Your task to perform on an android device: visit the assistant section in the google photos Image 0: 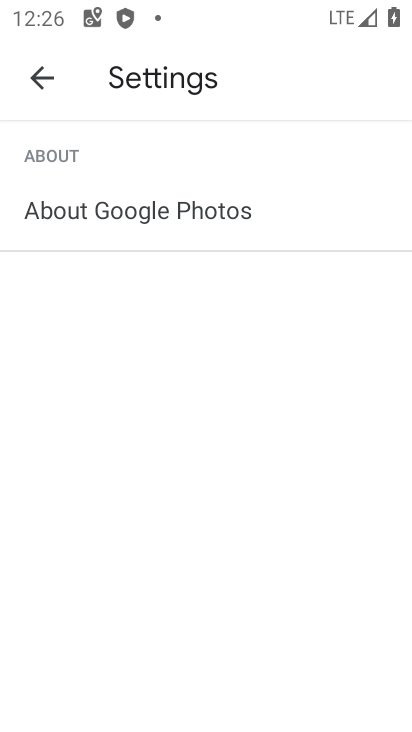
Step 0: press home button
Your task to perform on an android device: visit the assistant section in the google photos Image 1: 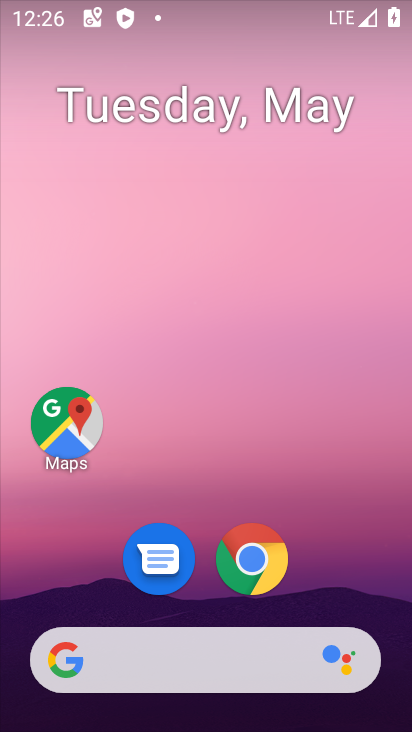
Step 1: drag from (357, 590) to (358, 1)
Your task to perform on an android device: visit the assistant section in the google photos Image 2: 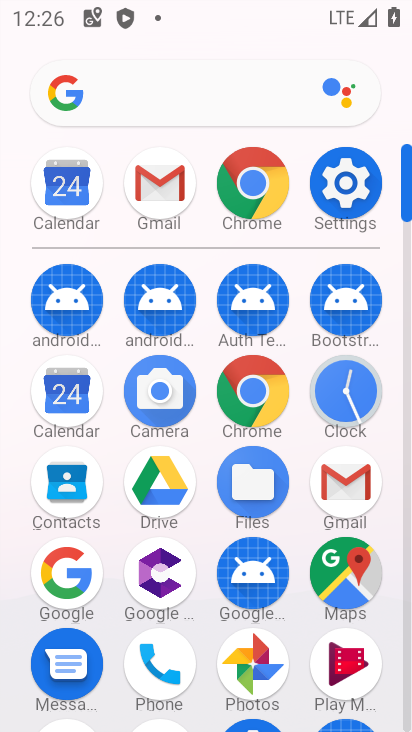
Step 2: click (258, 667)
Your task to perform on an android device: visit the assistant section in the google photos Image 3: 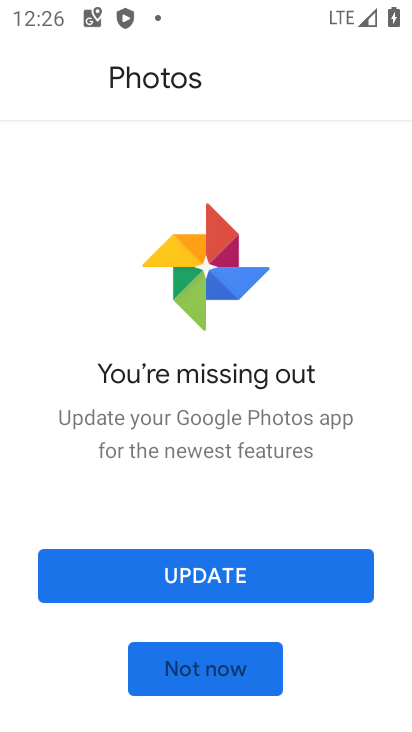
Step 3: click (208, 674)
Your task to perform on an android device: visit the assistant section in the google photos Image 4: 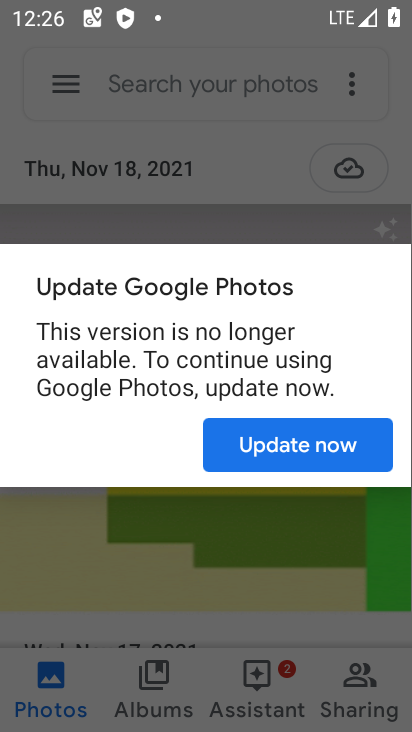
Step 4: click (300, 459)
Your task to perform on an android device: visit the assistant section in the google photos Image 5: 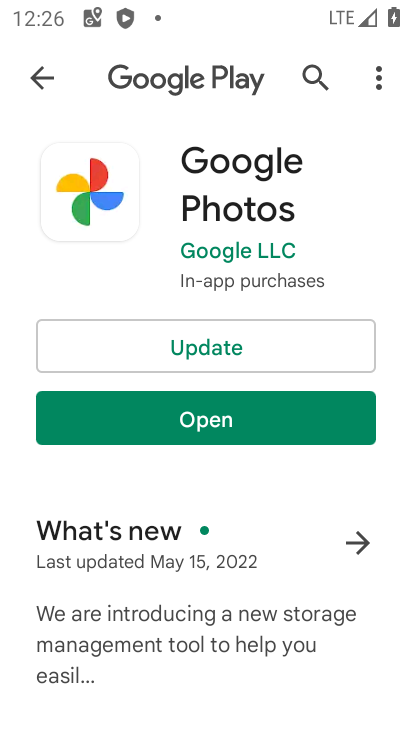
Step 5: click (243, 334)
Your task to perform on an android device: visit the assistant section in the google photos Image 6: 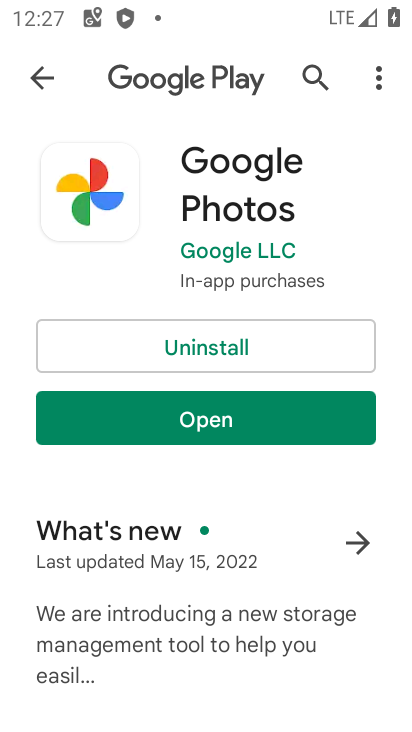
Step 6: click (164, 420)
Your task to perform on an android device: visit the assistant section in the google photos Image 7: 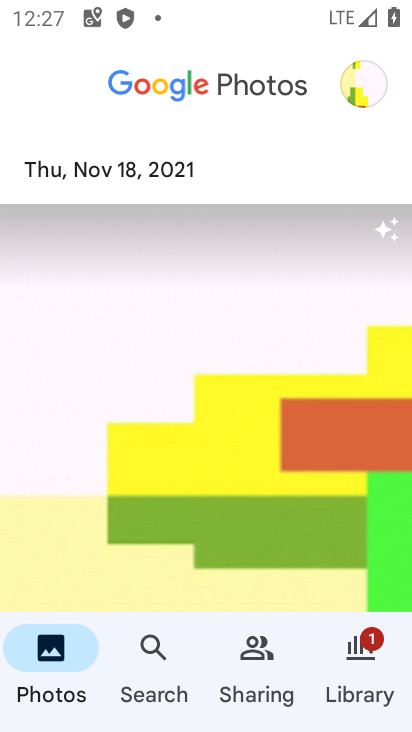
Step 7: click (371, 696)
Your task to perform on an android device: visit the assistant section in the google photos Image 8: 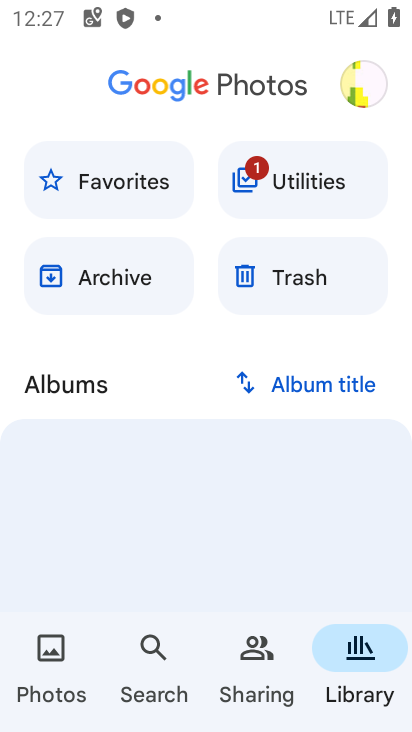
Step 8: click (307, 183)
Your task to perform on an android device: visit the assistant section in the google photos Image 9: 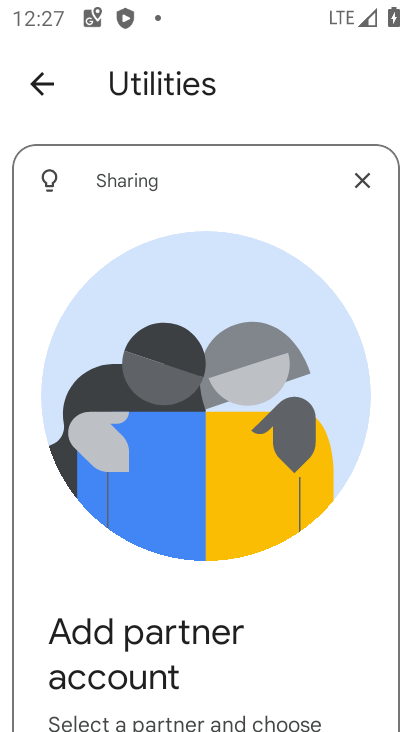
Step 9: task complete